Your task to perform on an android device: Go to network settings Image 0: 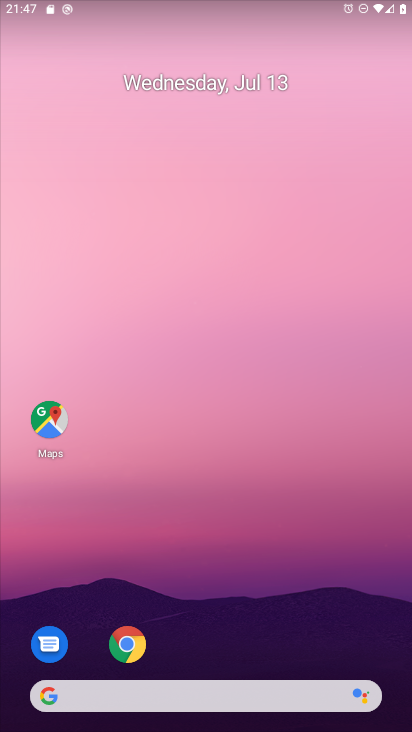
Step 0: press home button
Your task to perform on an android device: Go to network settings Image 1: 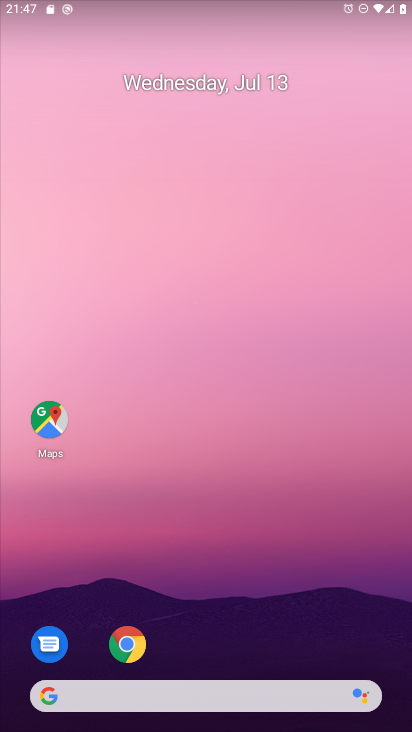
Step 1: drag from (218, 605) to (252, 121)
Your task to perform on an android device: Go to network settings Image 2: 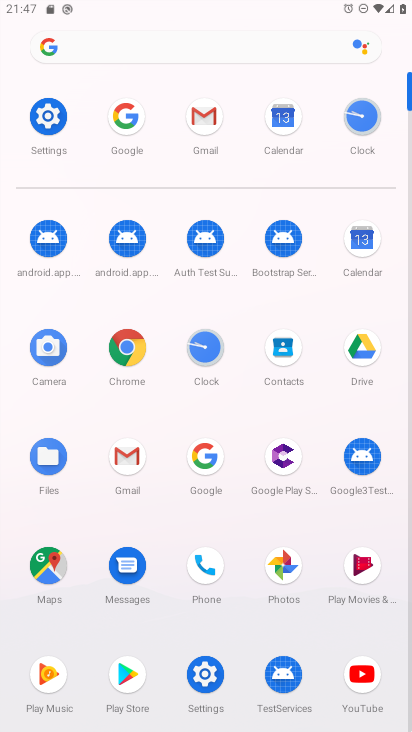
Step 2: click (53, 113)
Your task to perform on an android device: Go to network settings Image 3: 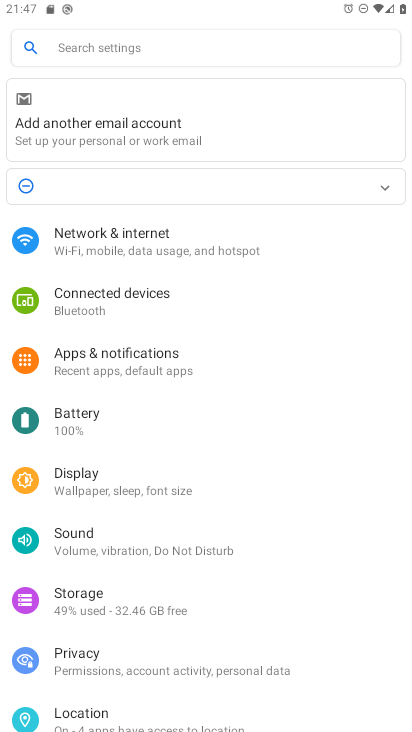
Step 3: click (141, 237)
Your task to perform on an android device: Go to network settings Image 4: 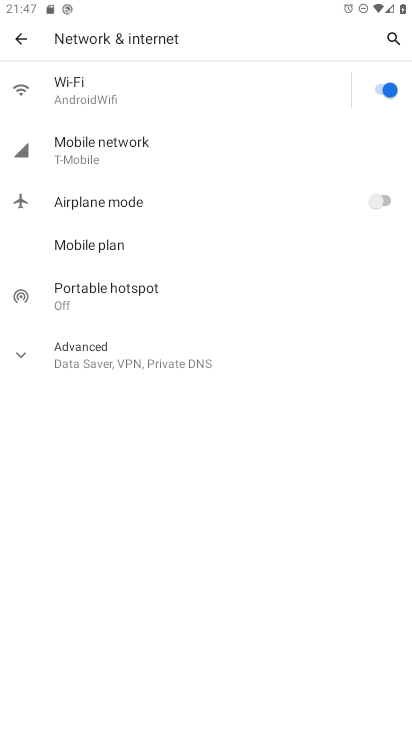
Step 4: click (73, 151)
Your task to perform on an android device: Go to network settings Image 5: 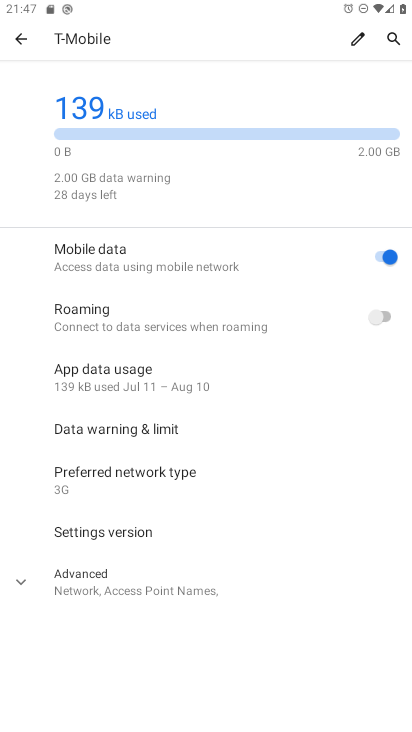
Step 5: task complete